Your task to perform on an android device: Go to battery settings Image 0: 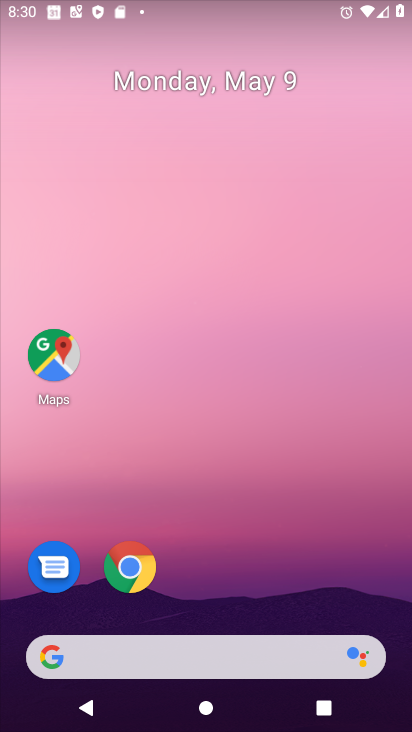
Step 0: drag from (336, 538) to (317, 152)
Your task to perform on an android device: Go to battery settings Image 1: 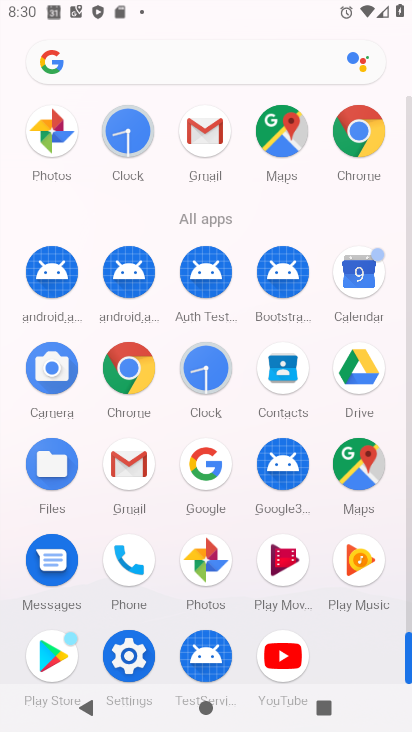
Step 1: click (140, 645)
Your task to perform on an android device: Go to battery settings Image 2: 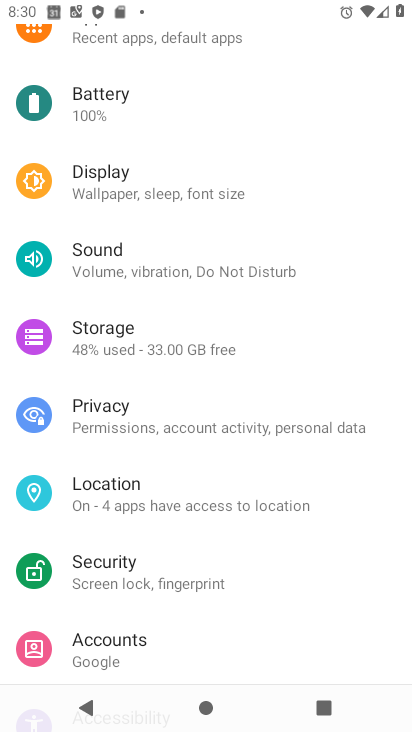
Step 2: click (113, 114)
Your task to perform on an android device: Go to battery settings Image 3: 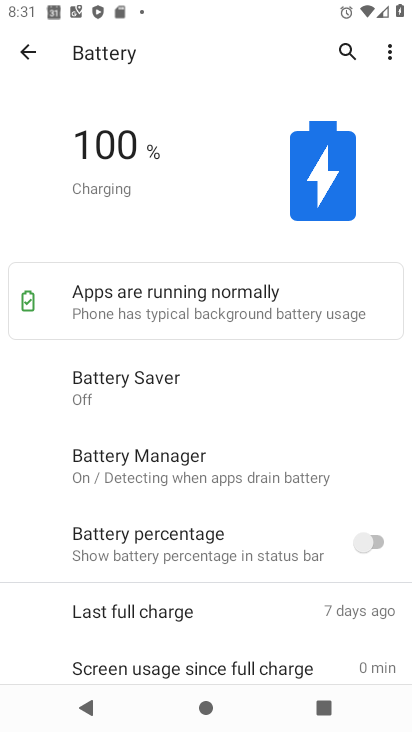
Step 3: task complete